Your task to perform on an android device: find which apps use the phone's location Image 0: 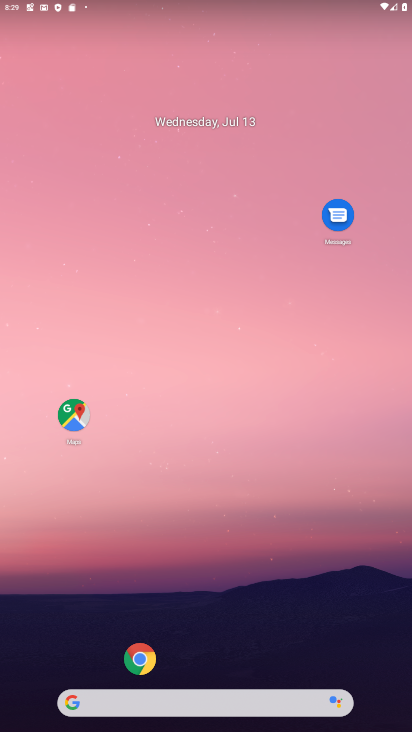
Step 0: drag from (31, 694) to (364, 8)
Your task to perform on an android device: find which apps use the phone's location Image 1: 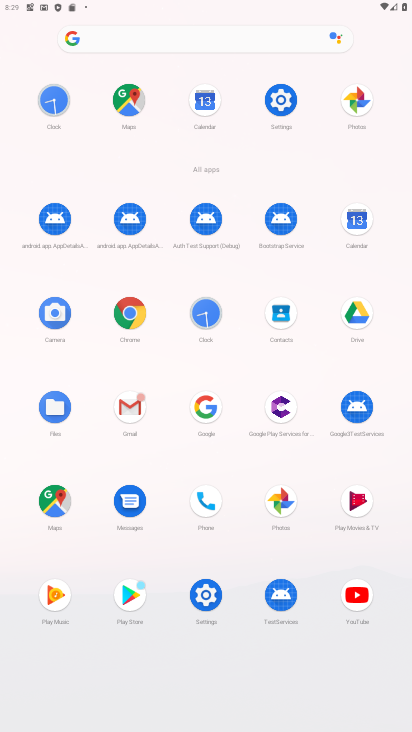
Step 1: click (200, 593)
Your task to perform on an android device: find which apps use the phone's location Image 2: 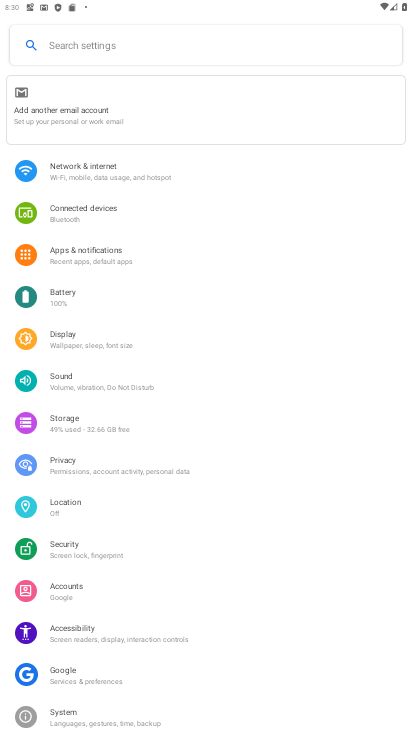
Step 2: click (74, 509)
Your task to perform on an android device: find which apps use the phone's location Image 3: 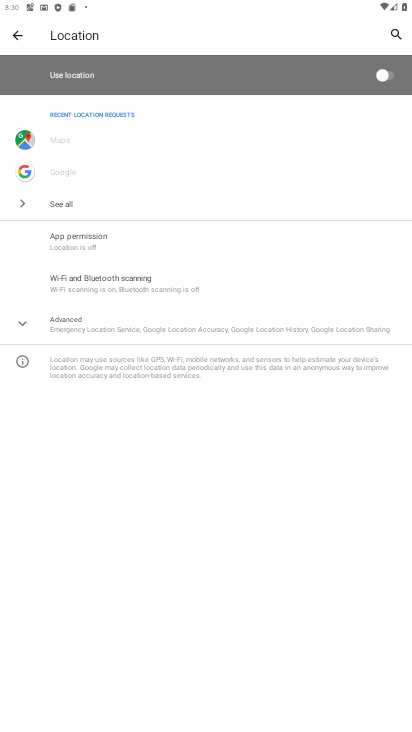
Step 3: click (82, 323)
Your task to perform on an android device: find which apps use the phone's location Image 4: 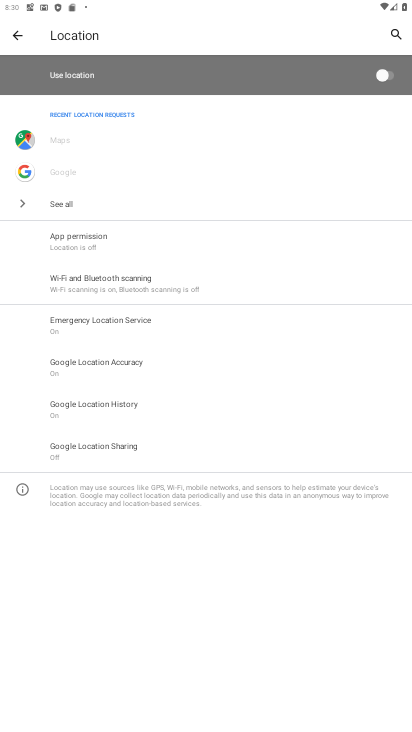
Step 4: click (84, 206)
Your task to perform on an android device: find which apps use the phone's location Image 5: 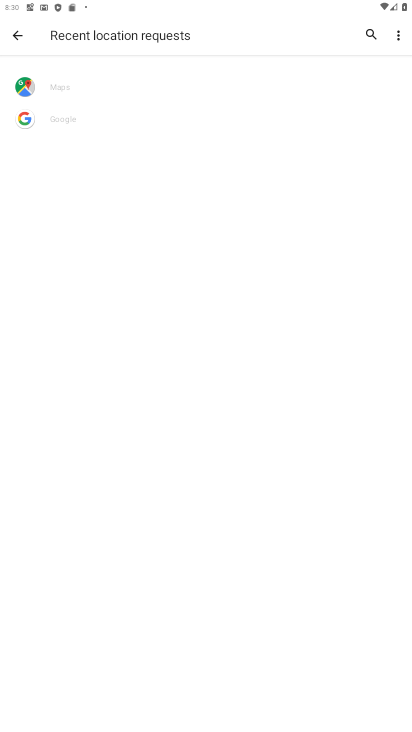
Step 5: task complete